Your task to perform on an android device: read, delete, or share a saved page in the chrome app Image 0: 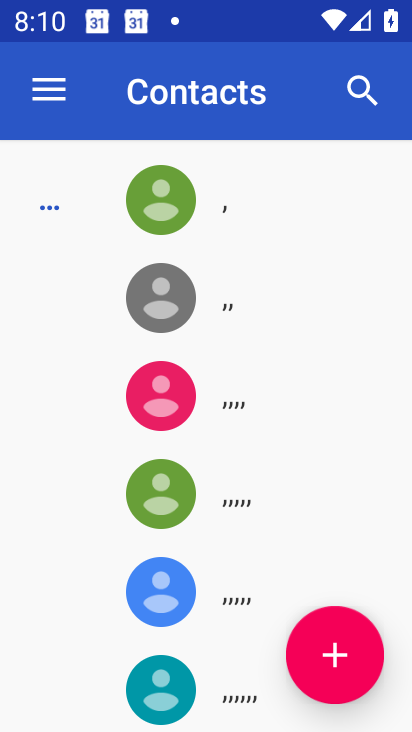
Step 0: press home button
Your task to perform on an android device: read, delete, or share a saved page in the chrome app Image 1: 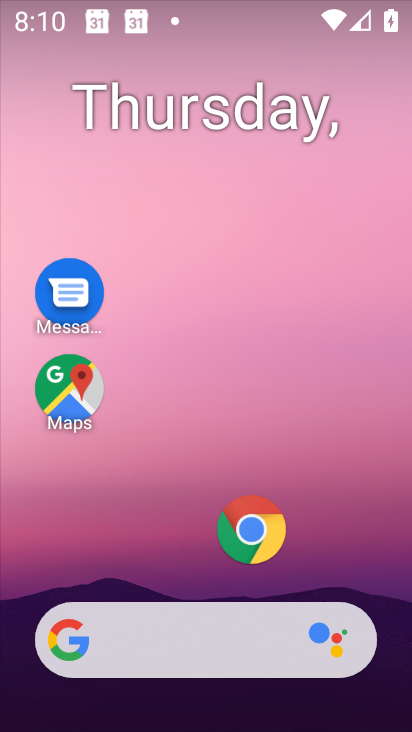
Step 1: click (253, 528)
Your task to perform on an android device: read, delete, or share a saved page in the chrome app Image 2: 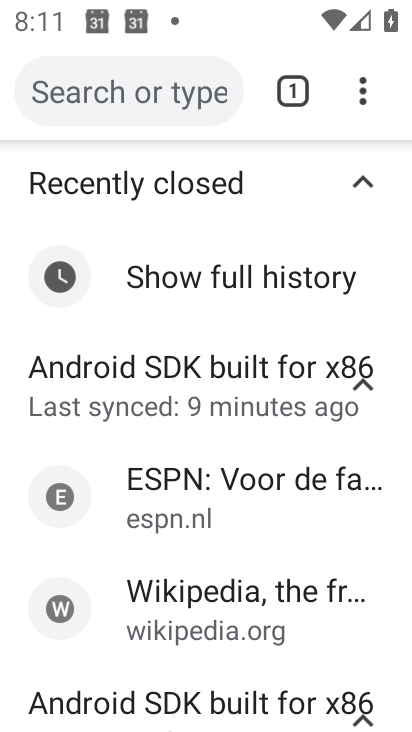
Step 2: click (378, 98)
Your task to perform on an android device: read, delete, or share a saved page in the chrome app Image 3: 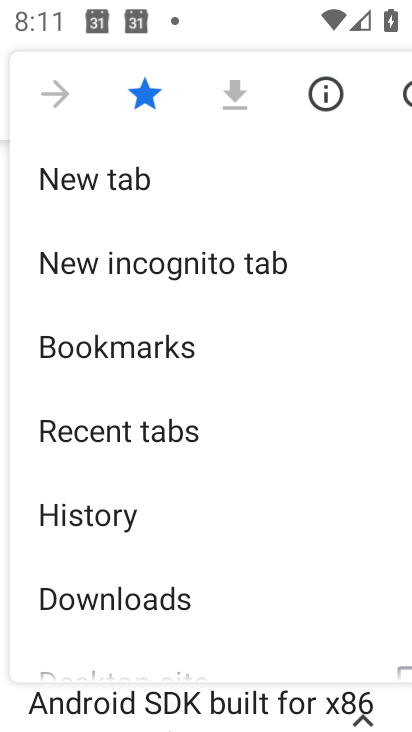
Step 3: click (83, 592)
Your task to perform on an android device: read, delete, or share a saved page in the chrome app Image 4: 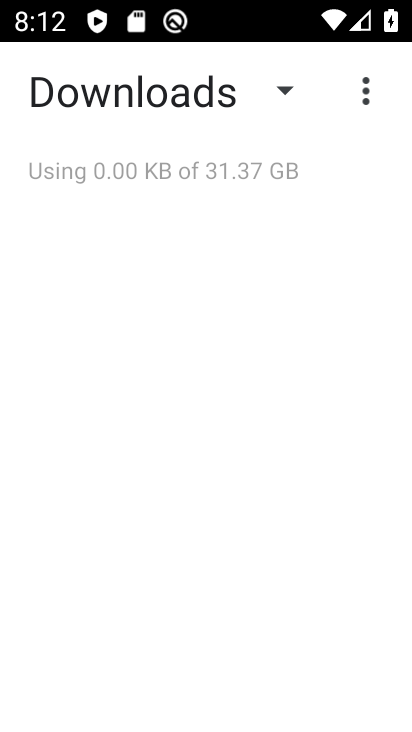
Step 4: task complete